Your task to perform on an android device: What's the weather today? Image 0: 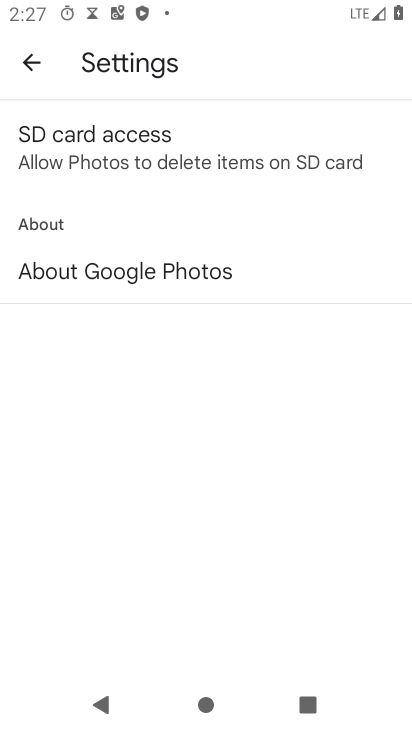
Step 0: press home button
Your task to perform on an android device: What's the weather today? Image 1: 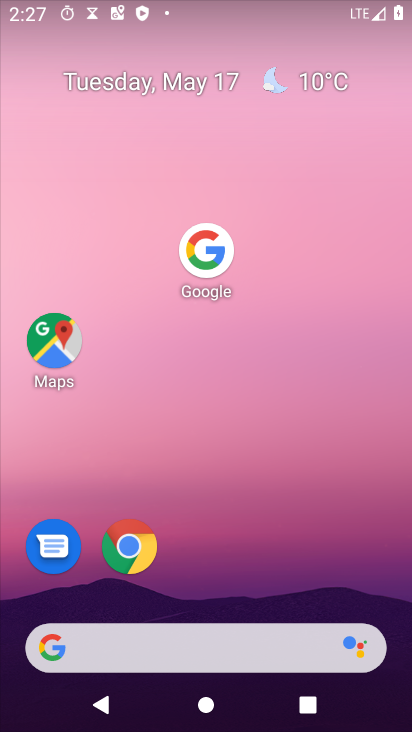
Step 1: click (308, 74)
Your task to perform on an android device: What's the weather today? Image 2: 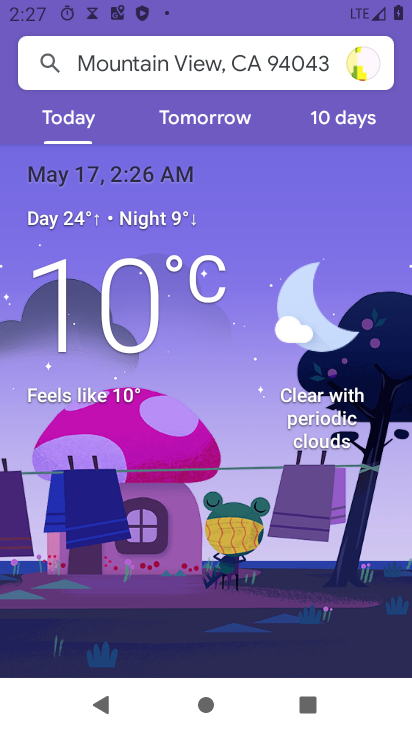
Step 2: task complete